Your task to perform on an android device: turn on javascript in the chrome app Image 0: 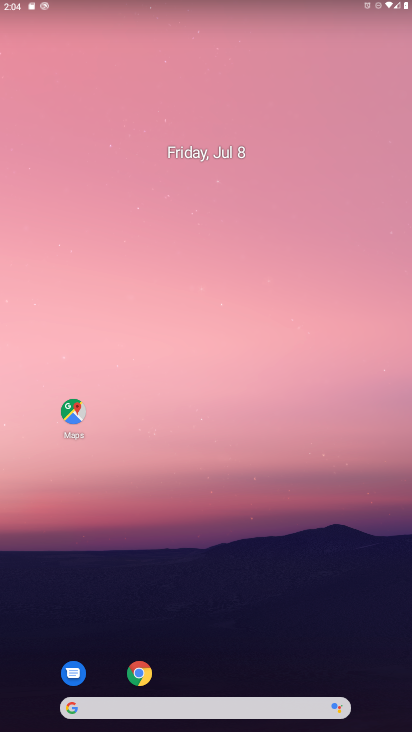
Step 0: click (137, 665)
Your task to perform on an android device: turn on javascript in the chrome app Image 1: 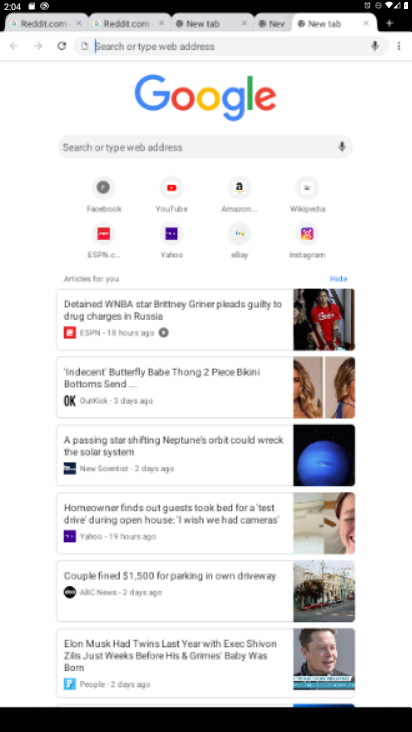
Step 1: click (396, 42)
Your task to perform on an android device: turn on javascript in the chrome app Image 2: 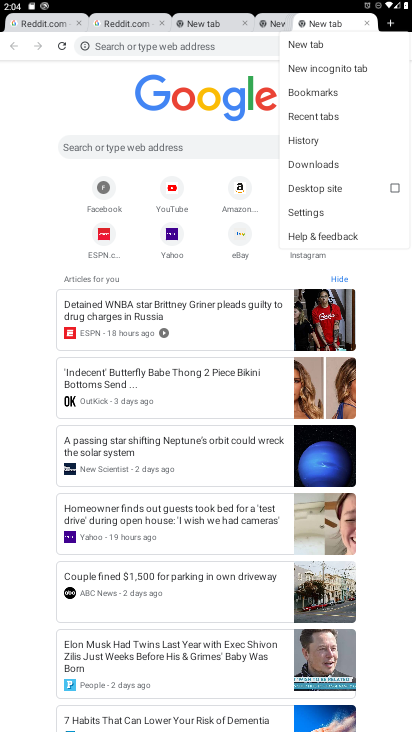
Step 2: click (295, 216)
Your task to perform on an android device: turn on javascript in the chrome app Image 3: 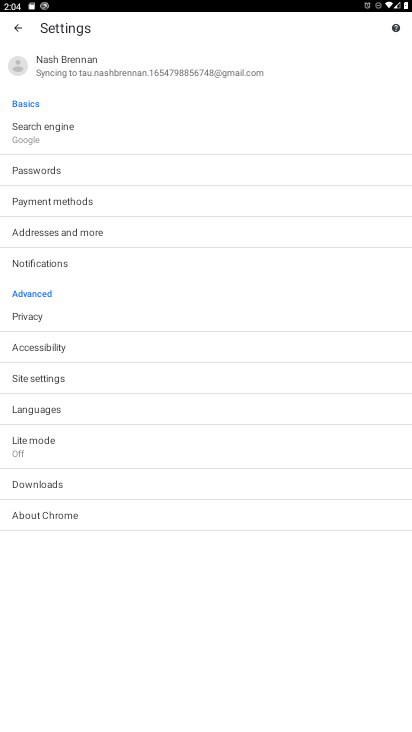
Step 3: click (54, 378)
Your task to perform on an android device: turn on javascript in the chrome app Image 4: 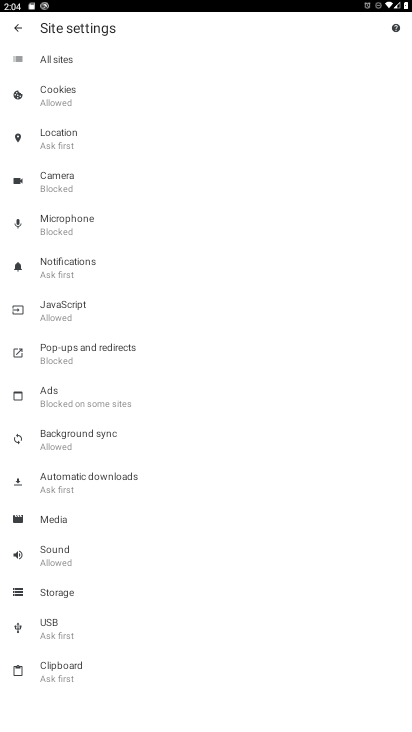
Step 4: click (64, 309)
Your task to perform on an android device: turn on javascript in the chrome app Image 5: 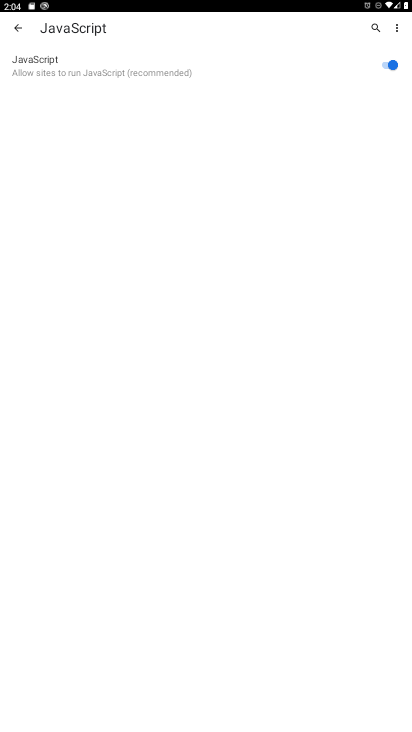
Step 5: task complete